Your task to perform on an android device: set the timer Image 0: 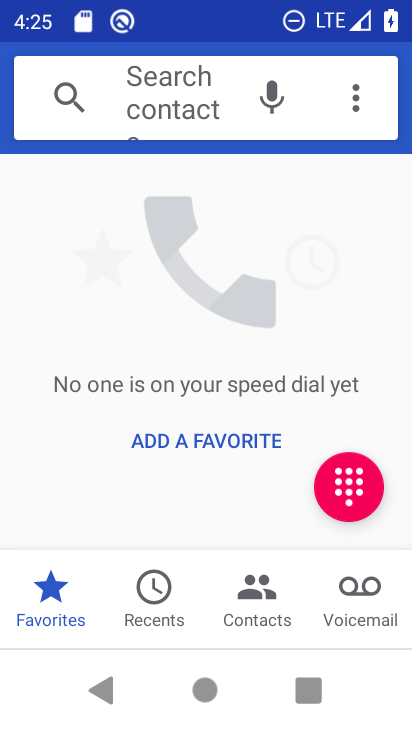
Step 0: press home button
Your task to perform on an android device: set the timer Image 1: 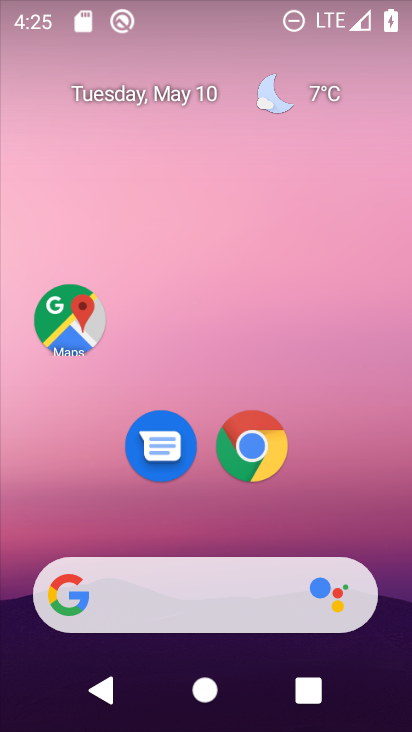
Step 1: drag from (299, 514) to (218, 52)
Your task to perform on an android device: set the timer Image 2: 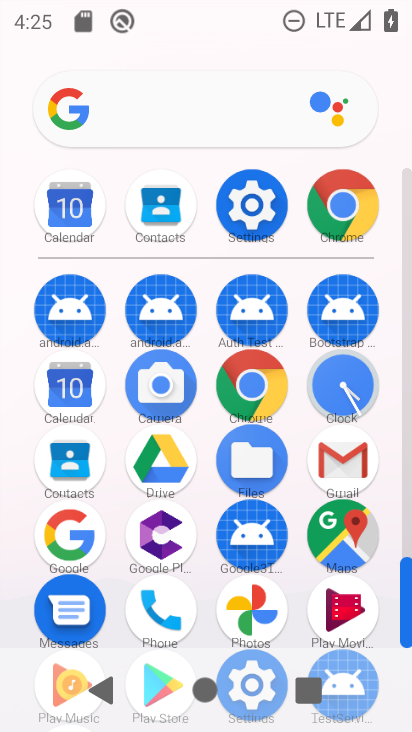
Step 2: click (349, 389)
Your task to perform on an android device: set the timer Image 3: 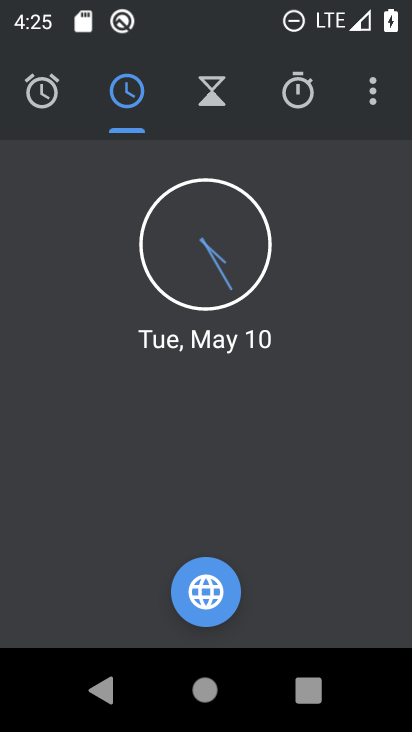
Step 3: click (212, 94)
Your task to perform on an android device: set the timer Image 4: 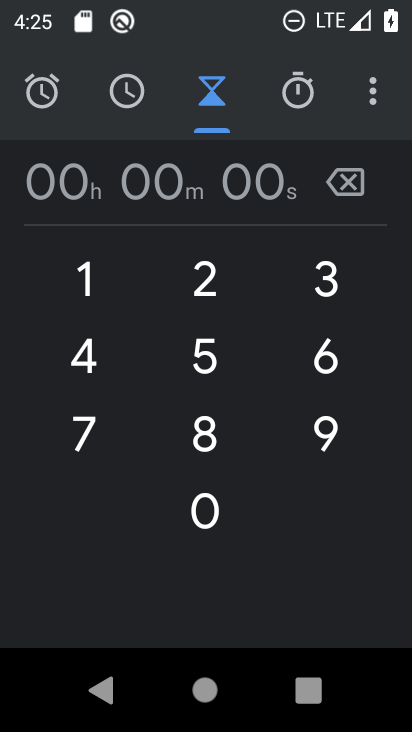
Step 4: click (92, 287)
Your task to perform on an android device: set the timer Image 5: 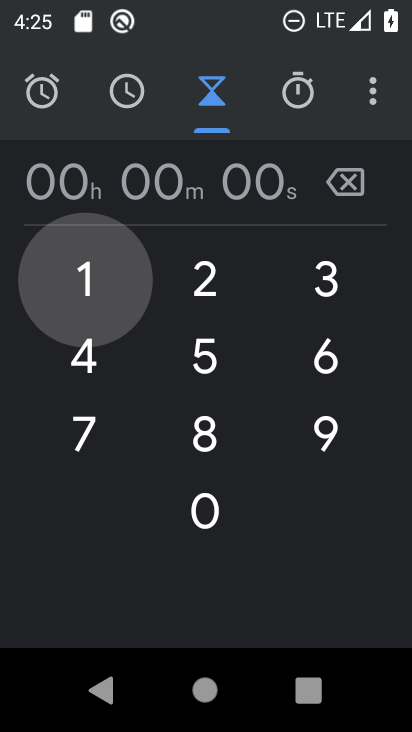
Step 5: click (92, 287)
Your task to perform on an android device: set the timer Image 6: 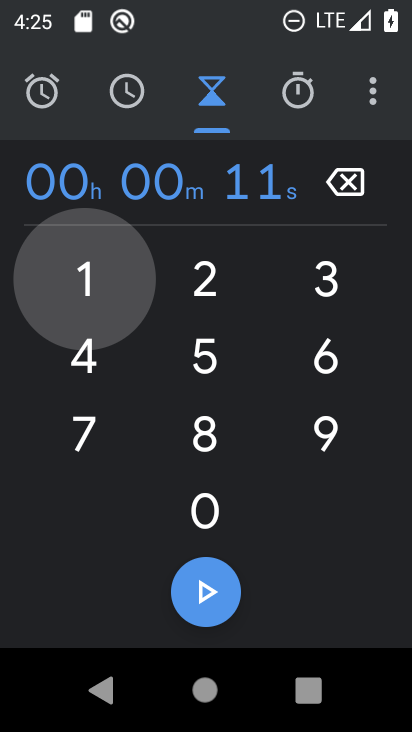
Step 6: click (92, 286)
Your task to perform on an android device: set the timer Image 7: 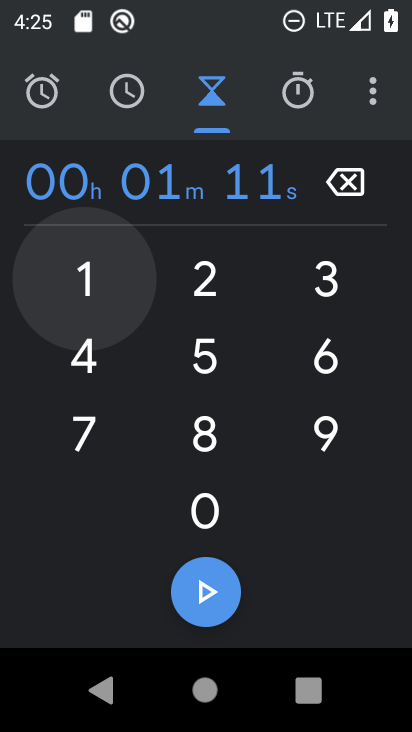
Step 7: click (92, 286)
Your task to perform on an android device: set the timer Image 8: 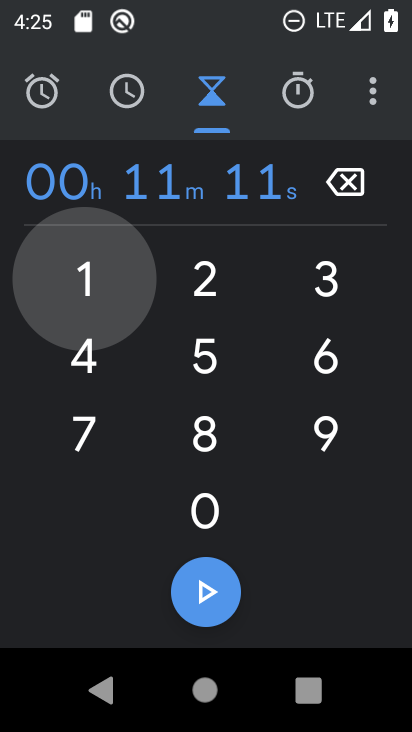
Step 8: click (92, 286)
Your task to perform on an android device: set the timer Image 9: 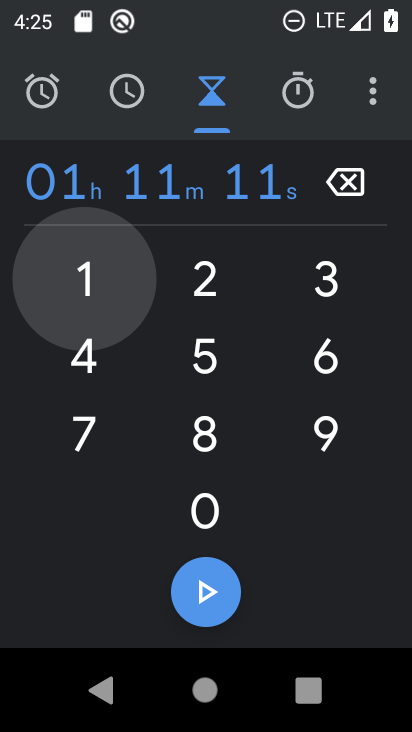
Step 9: click (92, 286)
Your task to perform on an android device: set the timer Image 10: 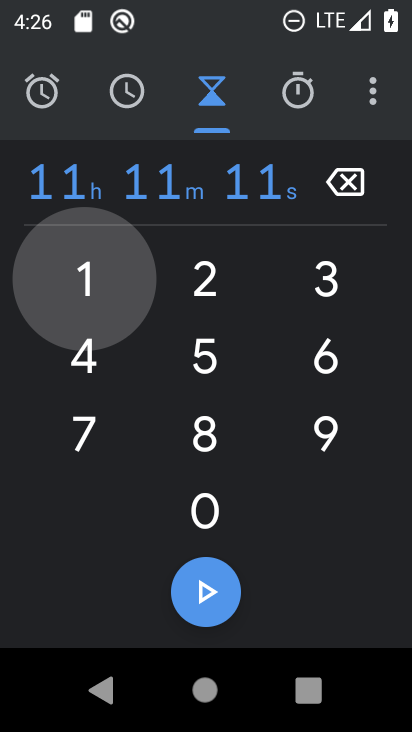
Step 10: click (92, 286)
Your task to perform on an android device: set the timer Image 11: 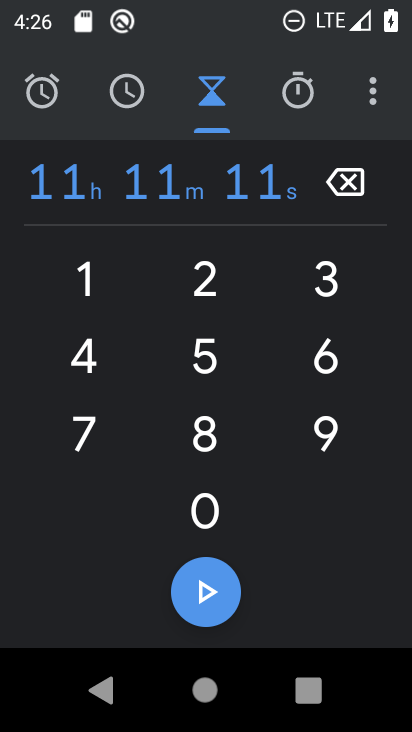
Step 11: click (221, 597)
Your task to perform on an android device: set the timer Image 12: 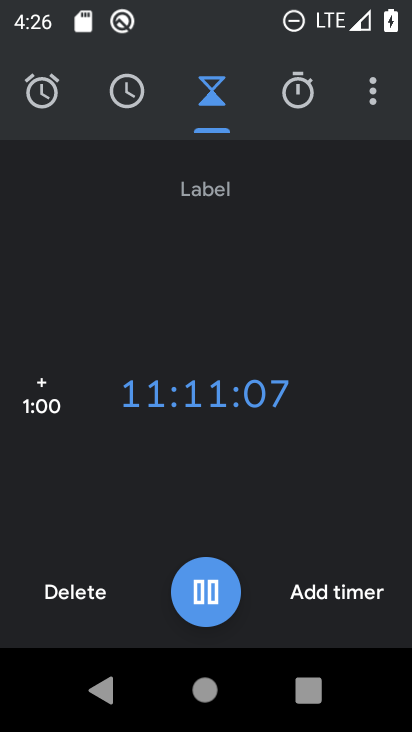
Step 12: task complete